Your task to perform on an android device: set the stopwatch Image 0: 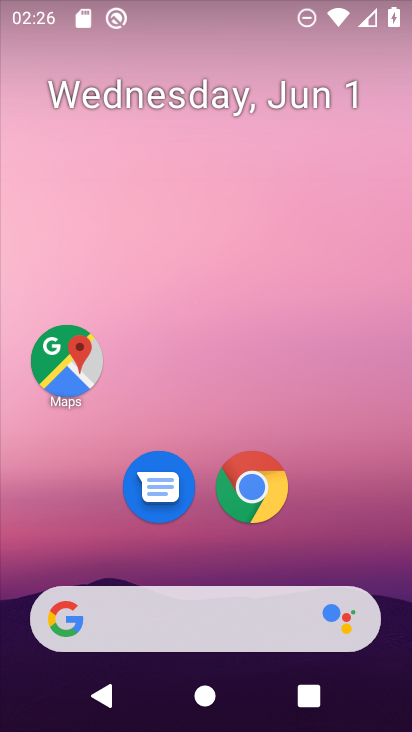
Step 0: drag from (325, 535) to (309, 176)
Your task to perform on an android device: set the stopwatch Image 1: 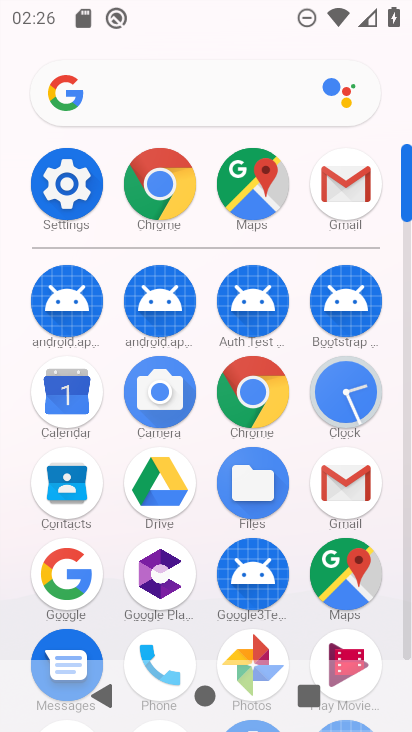
Step 1: click (338, 364)
Your task to perform on an android device: set the stopwatch Image 2: 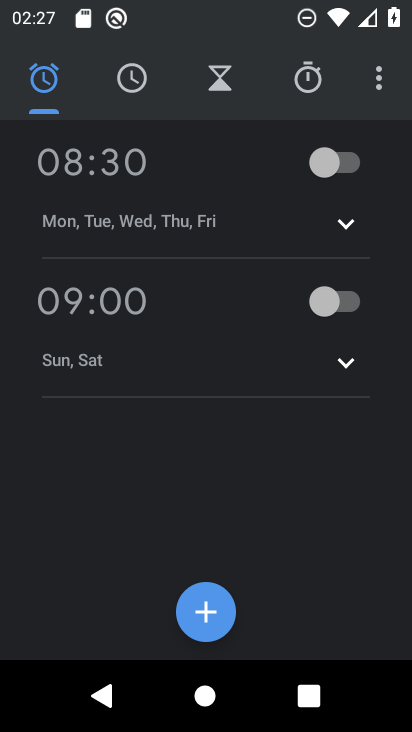
Step 2: click (305, 85)
Your task to perform on an android device: set the stopwatch Image 3: 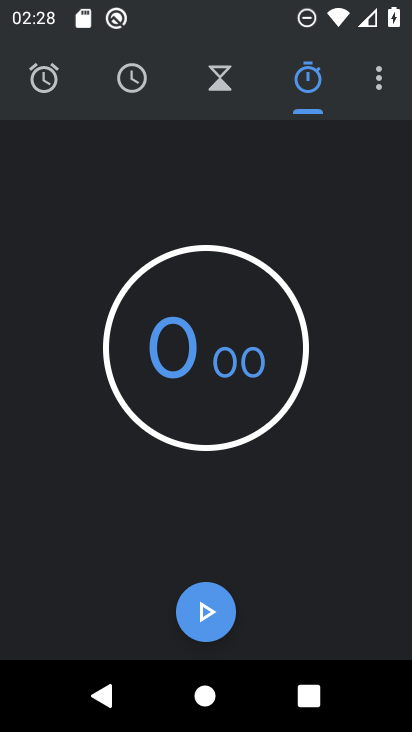
Step 3: task complete